Your task to perform on an android device: Go to accessibility settings Image 0: 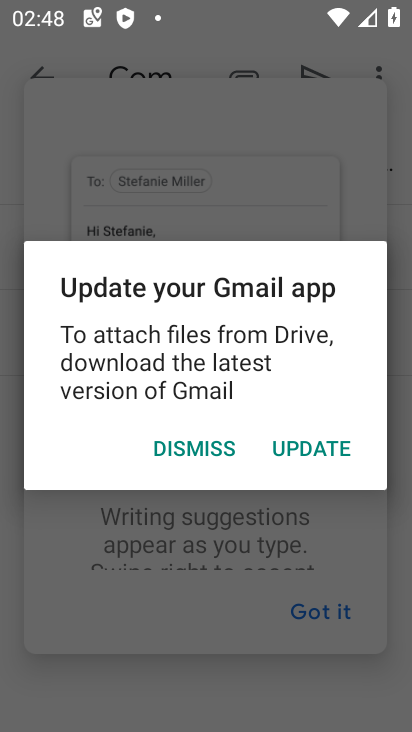
Step 0: press home button
Your task to perform on an android device: Go to accessibility settings Image 1: 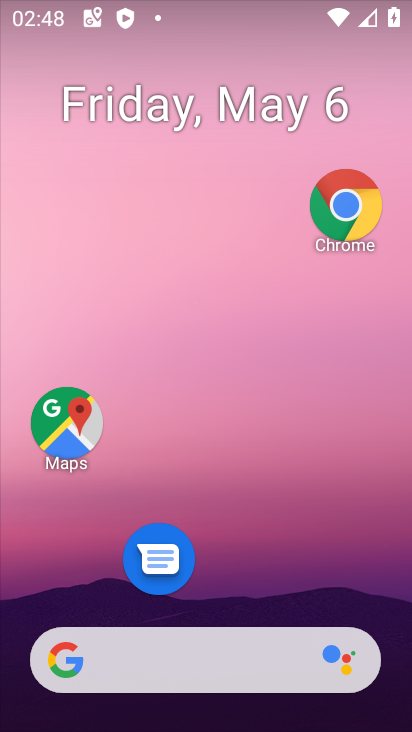
Step 1: drag from (186, 662) to (355, 84)
Your task to perform on an android device: Go to accessibility settings Image 2: 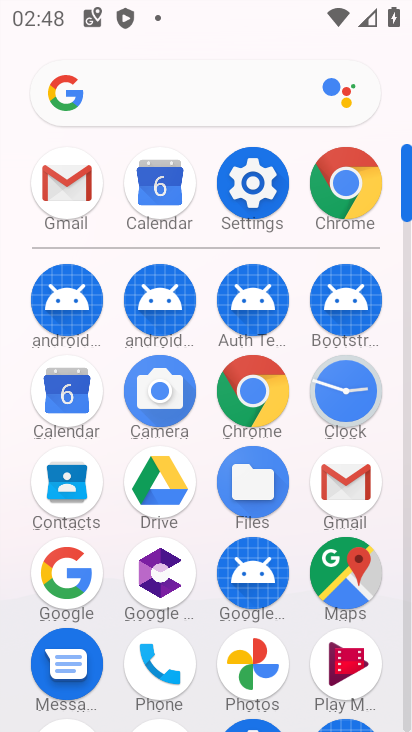
Step 2: click (250, 192)
Your task to perform on an android device: Go to accessibility settings Image 3: 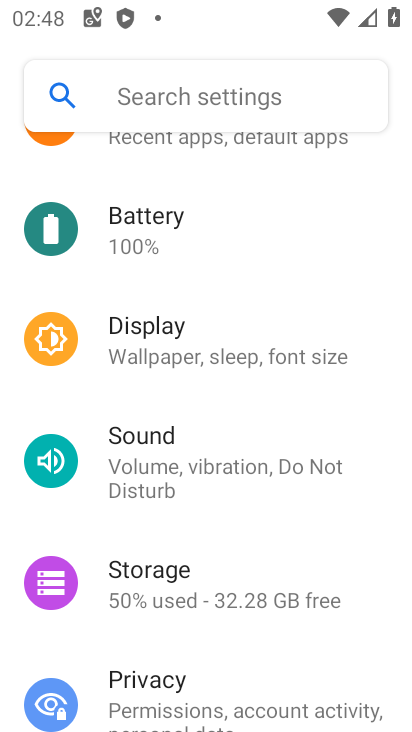
Step 3: drag from (223, 678) to (253, 80)
Your task to perform on an android device: Go to accessibility settings Image 4: 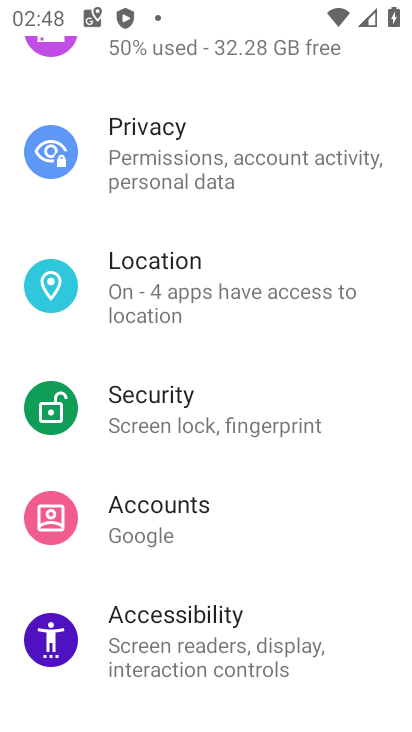
Step 4: click (142, 611)
Your task to perform on an android device: Go to accessibility settings Image 5: 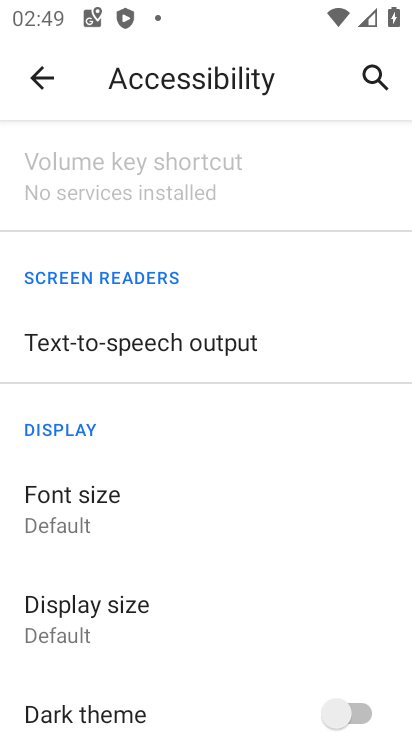
Step 5: task complete